Your task to perform on an android device: Open Youtube and go to "Your channel" Image 0: 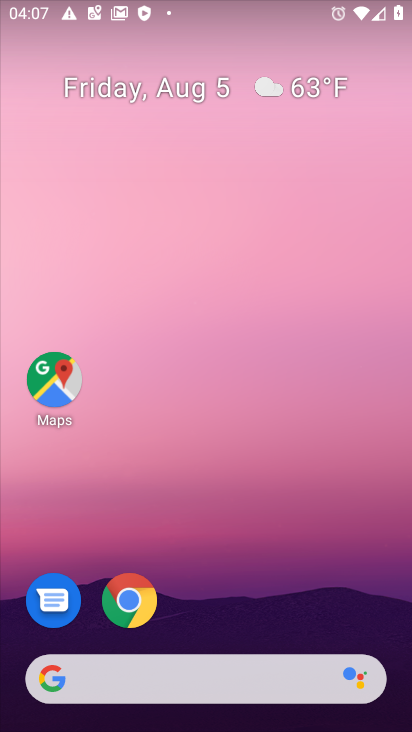
Step 0: drag from (181, 676) to (202, 103)
Your task to perform on an android device: Open Youtube and go to "Your channel" Image 1: 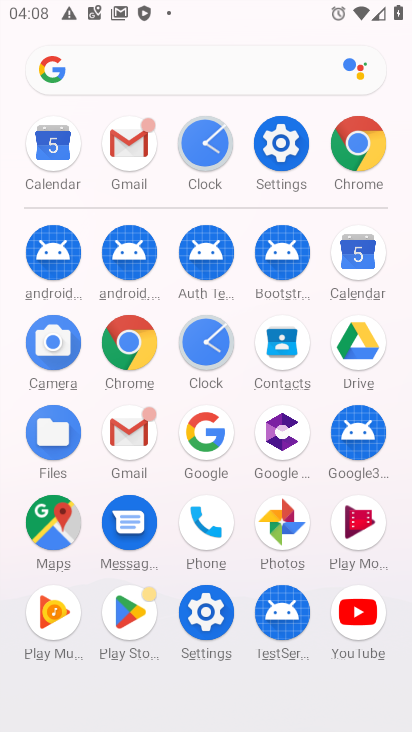
Step 1: click (357, 612)
Your task to perform on an android device: Open Youtube and go to "Your channel" Image 2: 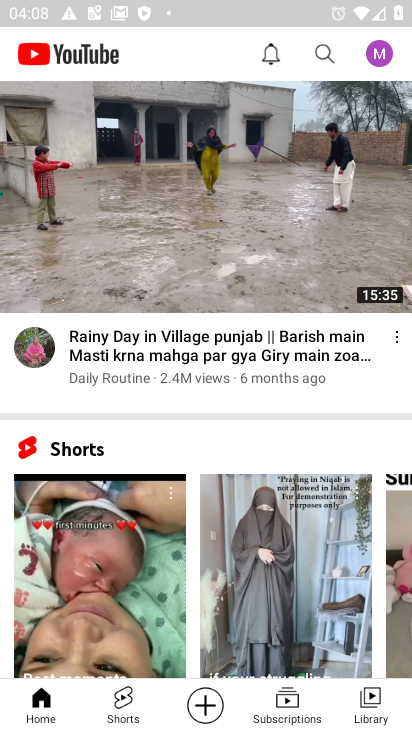
Step 2: click (378, 57)
Your task to perform on an android device: Open Youtube and go to "Your channel" Image 3: 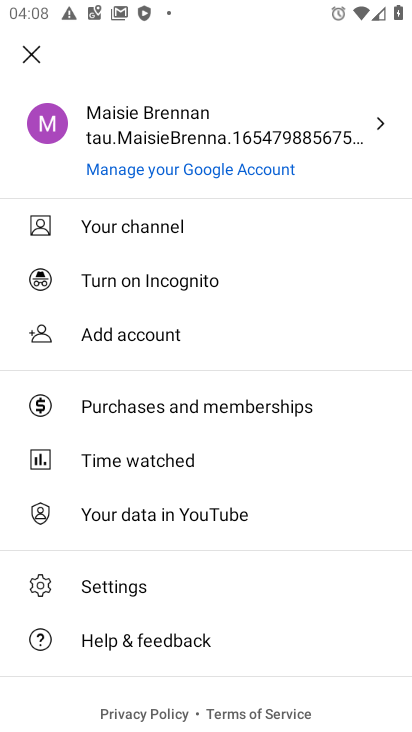
Step 3: click (161, 229)
Your task to perform on an android device: Open Youtube and go to "Your channel" Image 4: 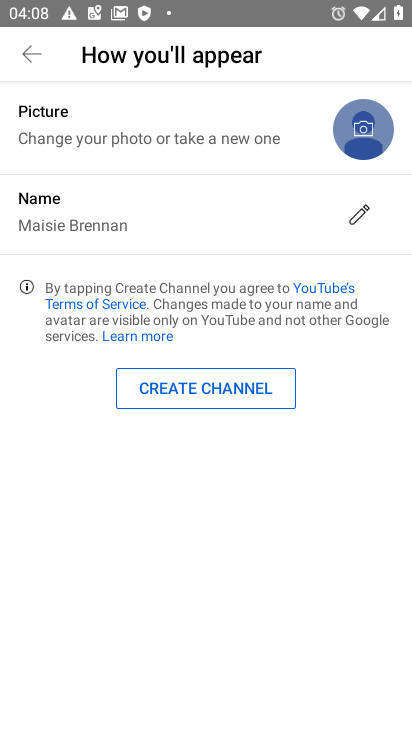
Step 4: task complete